Your task to perform on an android device: check out phone information Image 0: 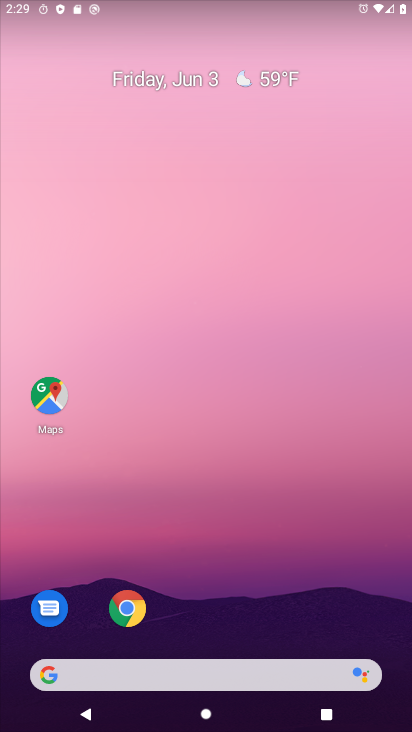
Step 0: drag from (217, 679) to (213, 155)
Your task to perform on an android device: check out phone information Image 1: 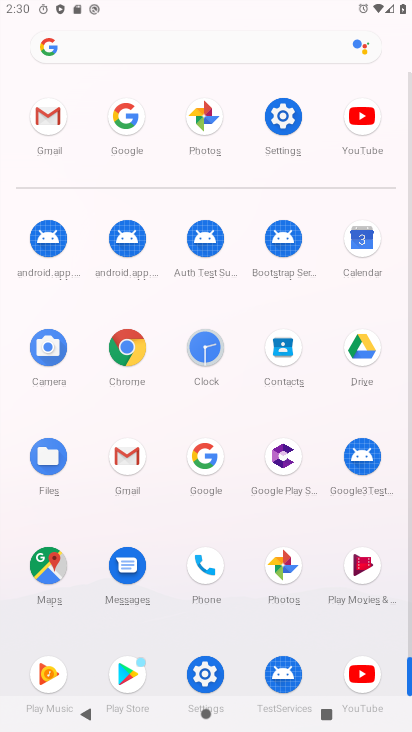
Step 1: click (279, 128)
Your task to perform on an android device: check out phone information Image 2: 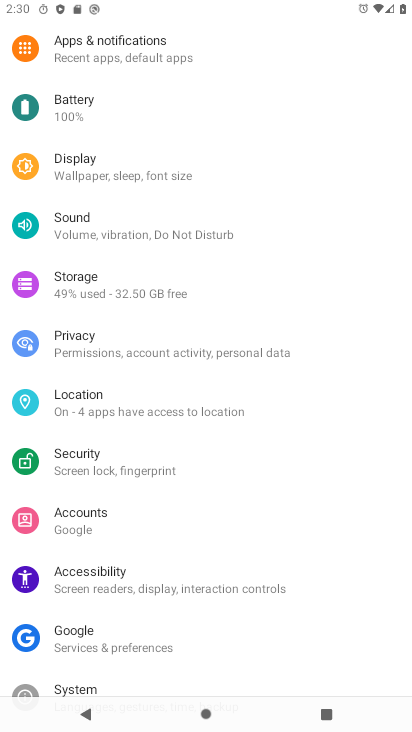
Step 2: drag from (156, 577) to (164, 53)
Your task to perform on an android device: check out phone information Image 3: 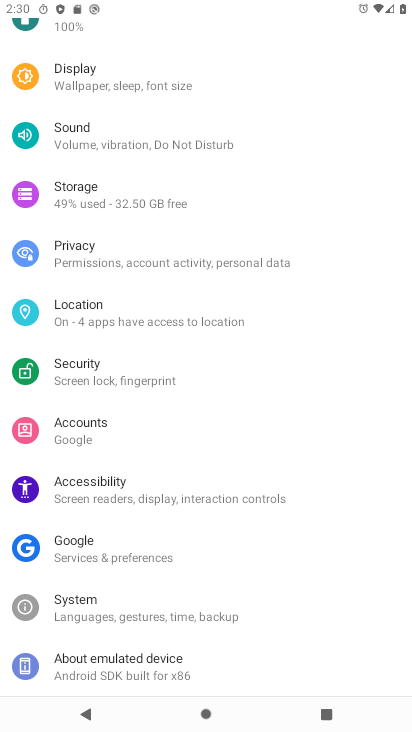
Step 3: click (146, 653)
Your task to perform on an android device: check out phone information Image 4: 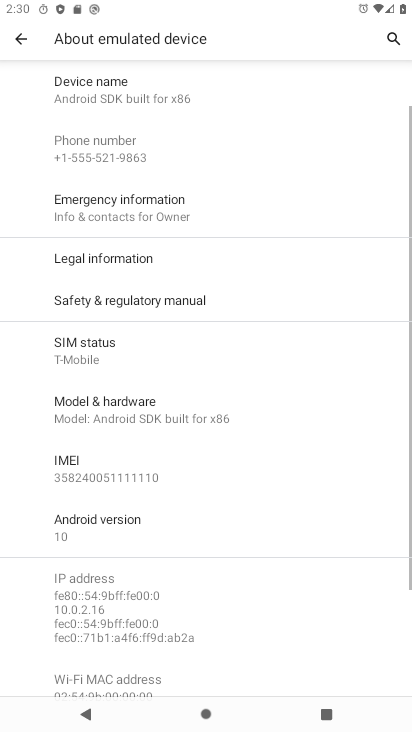
Step 4: task complete